Your task to perform on an android device: change text size in settings app Image 0: 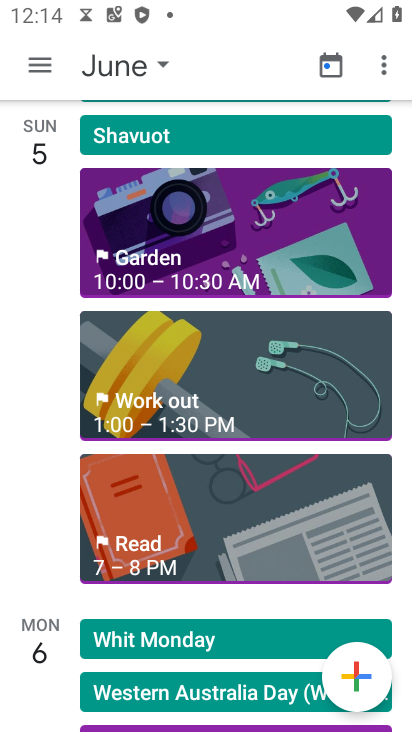
Step 0: press home button
Your task to perform on an android device: change text size in settings app Image 1: 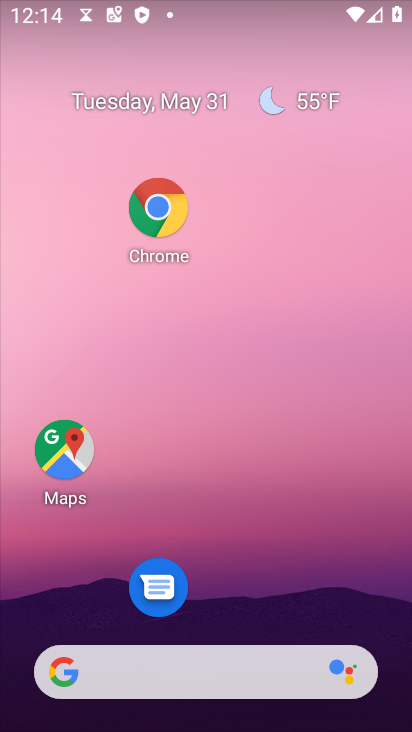
Step 1: drag from (232, 600) to (233, 158)
Your task to perform on an android device: change text size in settings app Image 2: 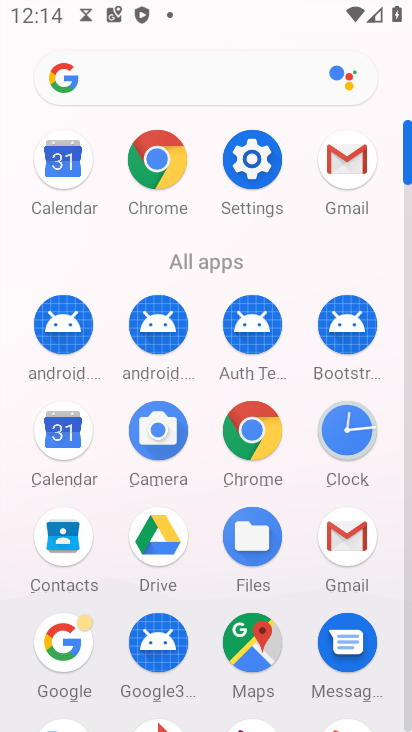
Step 2: click (255, 176)
Your task to perform on an android device: change text size in settings app Image 3: 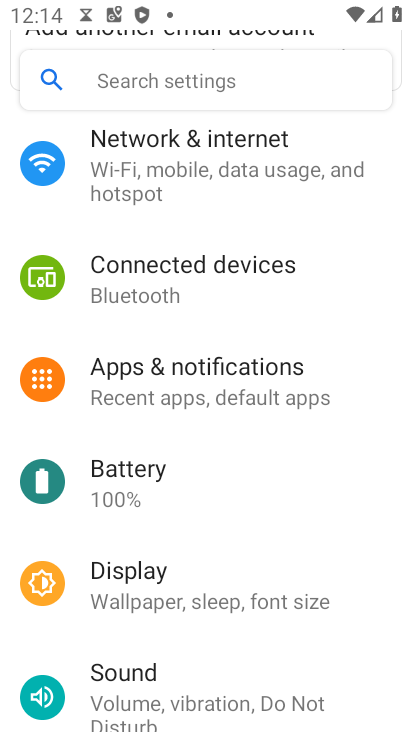
Step 3: click (176, 592)
Your task to perform on an android device: change text size in settings app Image 4: 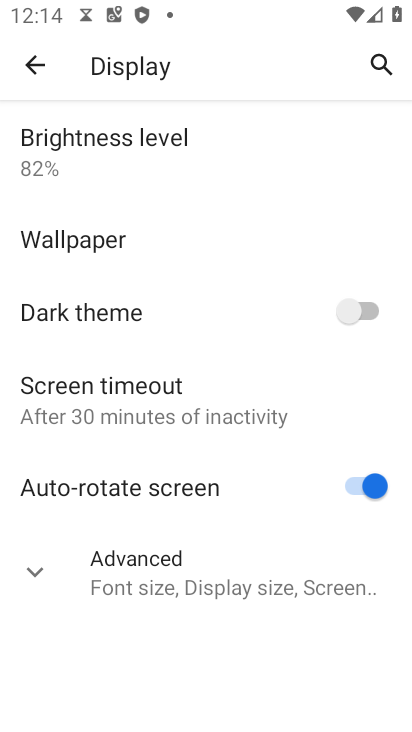
Step 4: click (176, 592)
Your task to perform on an android device: change text size in settings app Image 5: 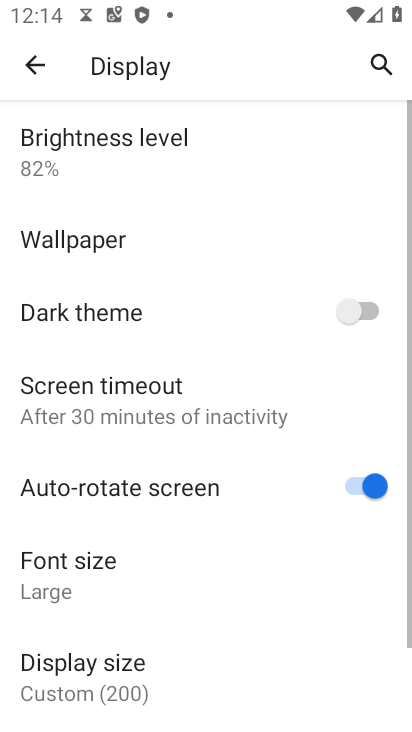
Step 5: click (176, 592)
Your task to perform on an android device: change text size in settings app Image 6: 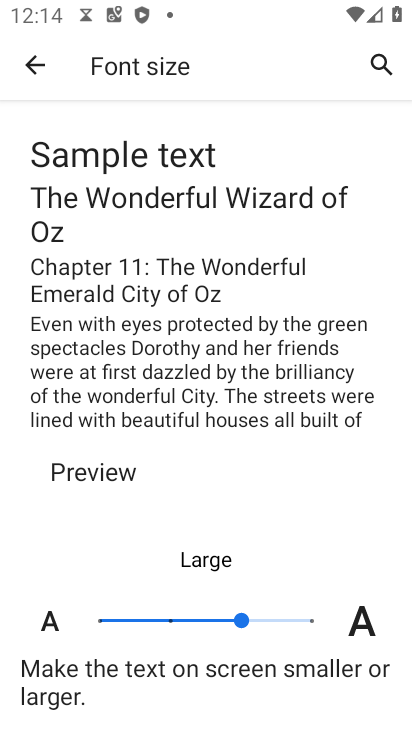
Step 6: click (170, 620)
Your task to perform on an android device: change text size in settings app Image 7: 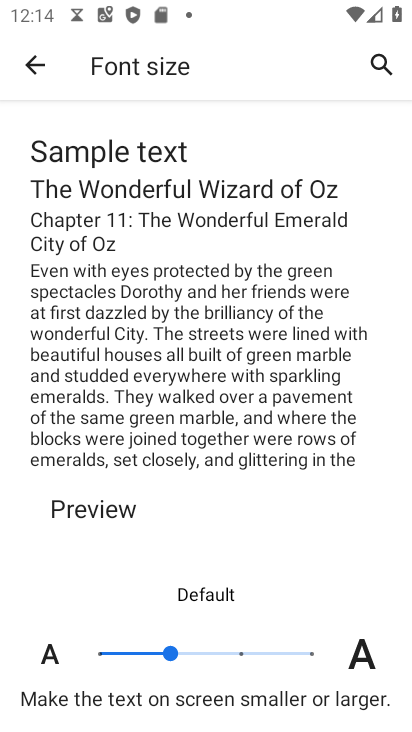
Step 7: task complete